Your task to perform on an android device: set an alarm Image 0: 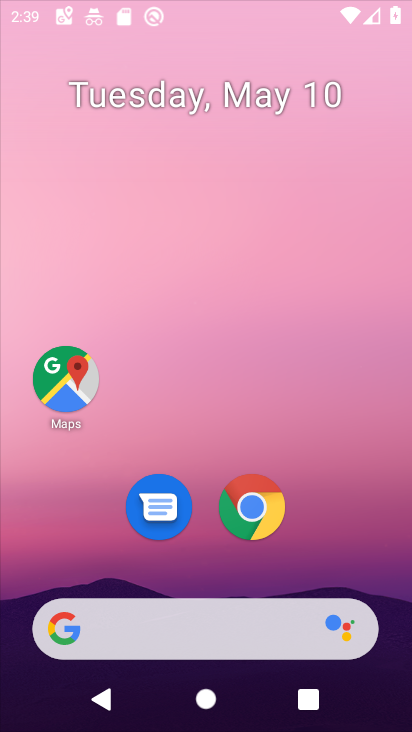
Step 0: press home button
Your task to perform on an android device: set an alarm Image 1: 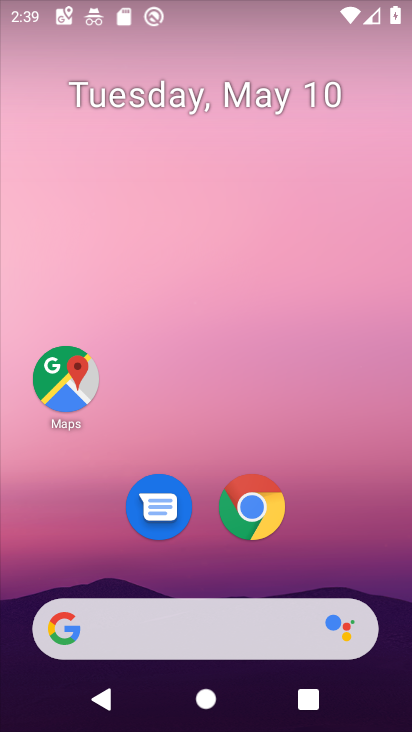
Step 1: drag from (192, 570) to (194, 238)
Your task to perform on an android device: set an alarm Image 2: 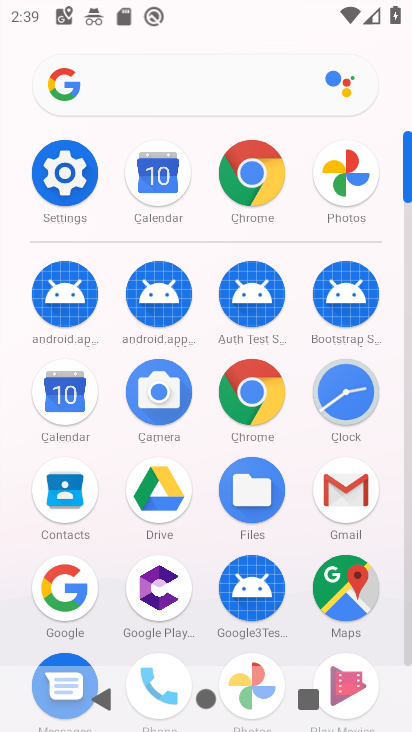
Step 2: drag from (224, 557) to (246, 316)
Your task to perform on an android device: set an alarm Image 3: 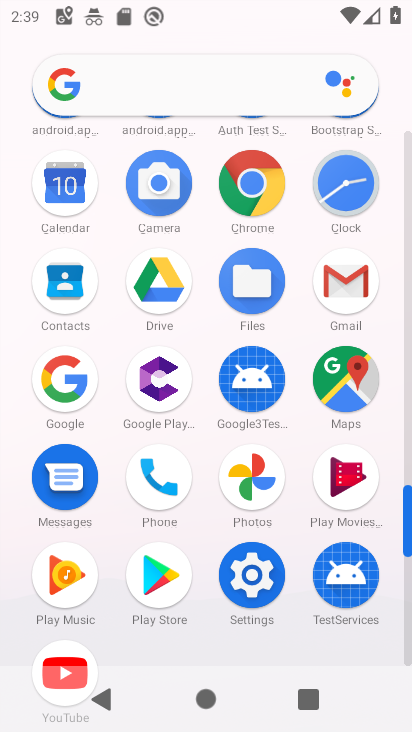
Step 3: click (331, 187)
Your task to perform on an android device: set an alarm Image 4: 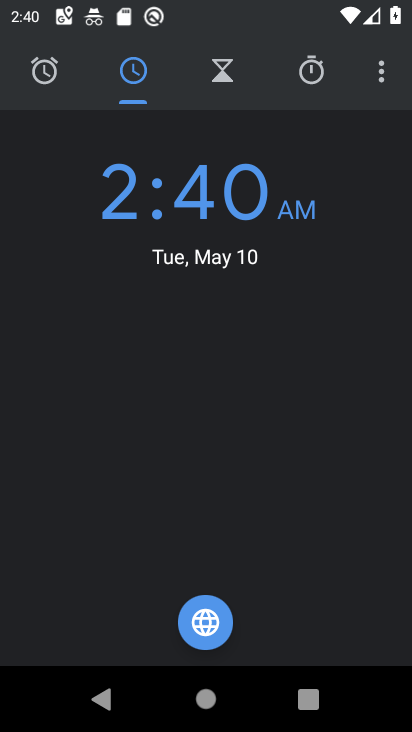
Step 4: click (43, 92)
Your task to perform on an android device: set an alarm Image 5: 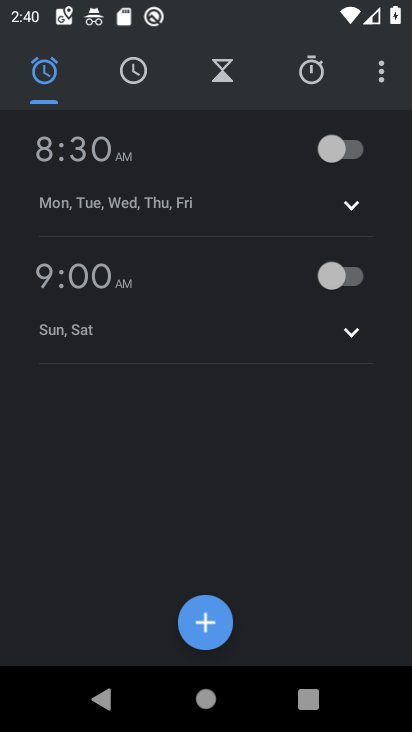
Step 5: task complete